Your task to perform on an android device: change your default location settings in chrome Image 0: 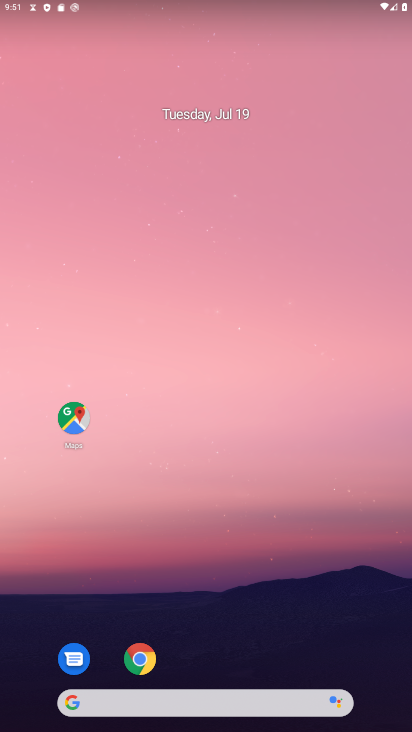
Step 0: drag from (244, 391) to (352, 23)
Your task to perform on an android device: change your default location settings in chrome Image 1: 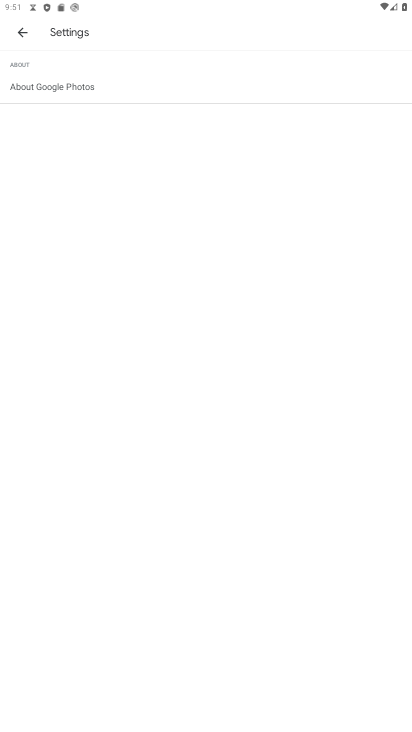
Step 1: drag from (254, 493) to (209, 104)
Your task to perform on an android device: change your default location settings in chrome Image 2: 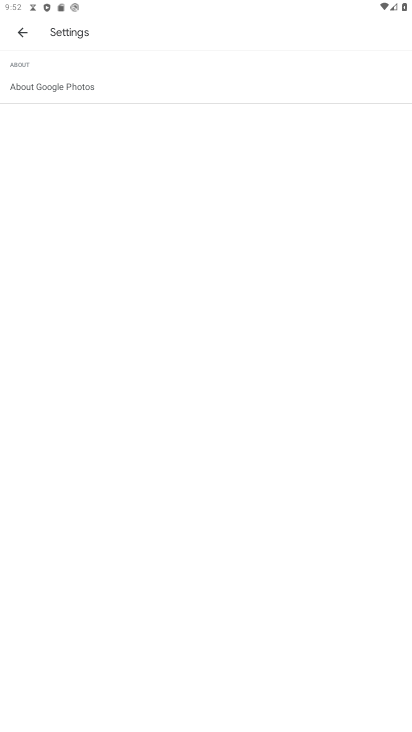
Step 2: drag from (254, 399) to (243, 64)
Your task to perform on an android device: change your default location settings in chrome Image 3: 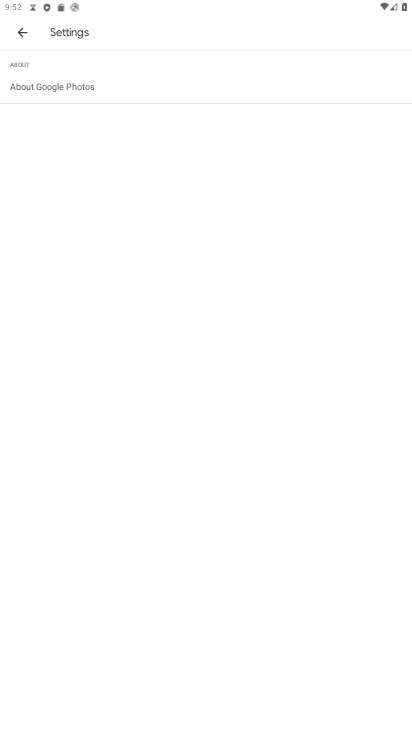
Step 3: click (201, 380)
Your task to perform on an android device: change your default location settings in chrome Image 4: 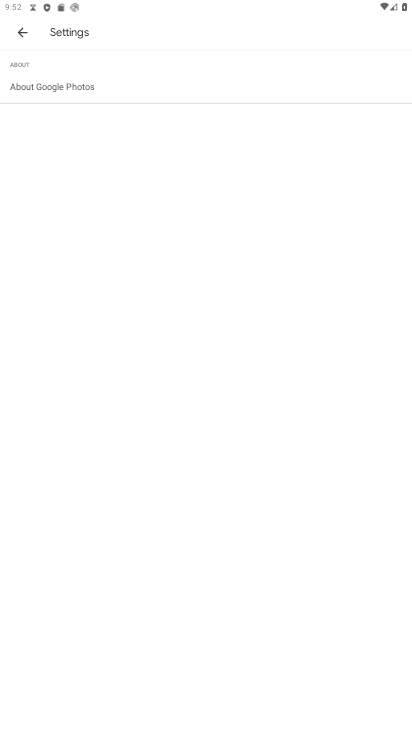
Step 4: click (35, 30)
Your task to perform on an android device: change your default location settings in chrome Image 5: 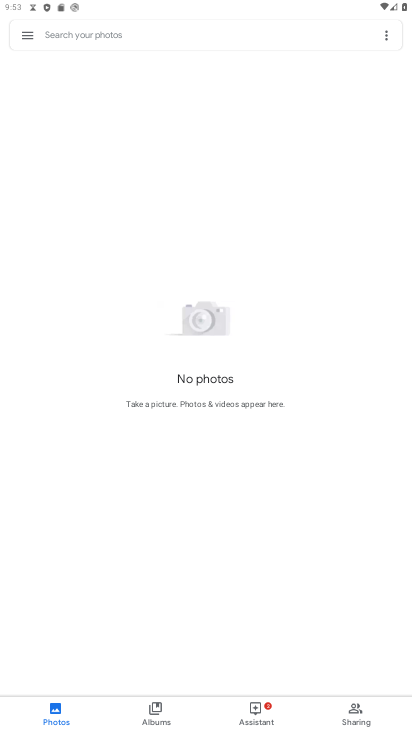
Step 5: drag from (312, 397) to (312, 301)
Your task to perform on an android device: change your default location settings in chrome Image 6: 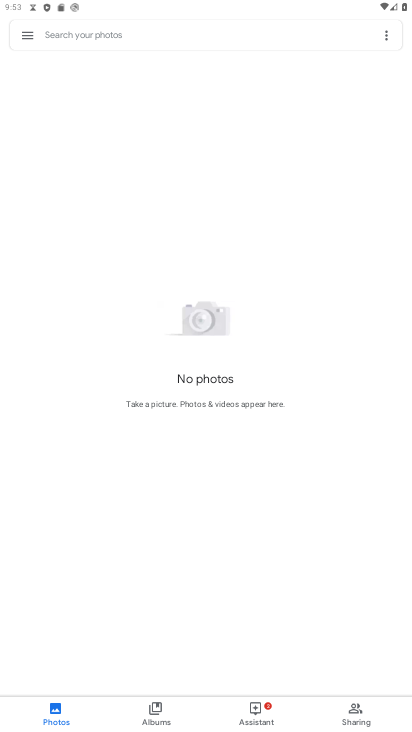
Step 6: press home button
Your task to perform on an android device: change your default location settings in chrome Image 7: 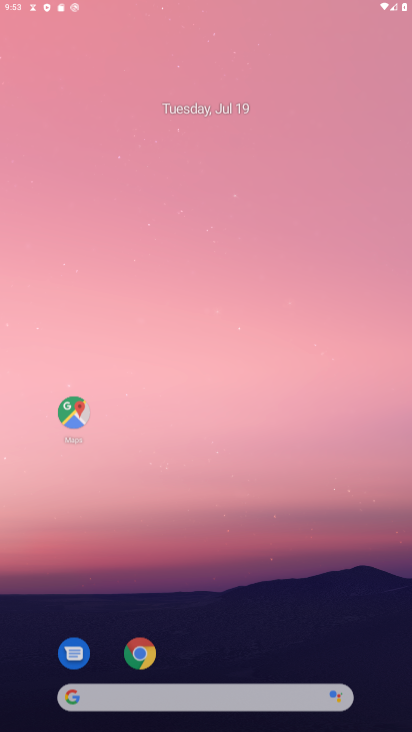
Step 7: drag from (280, 271) to (372, 18)
Your task to perform on an android device: change your default location settings in chrome Image 8: 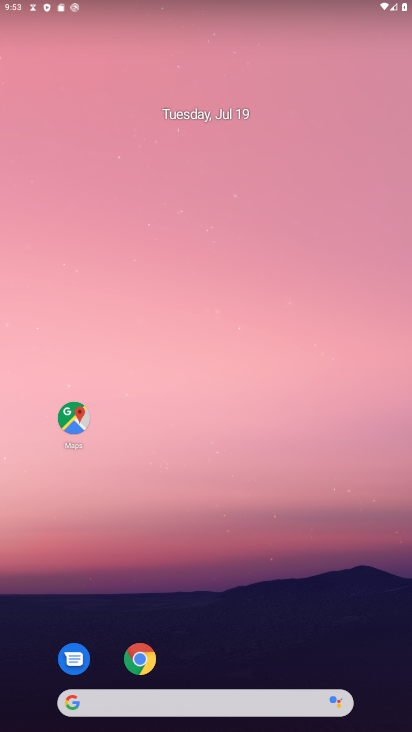
Step 8: click (134, 662)
Your task to perform on an android device: change your default location settings in chrome Image 9: 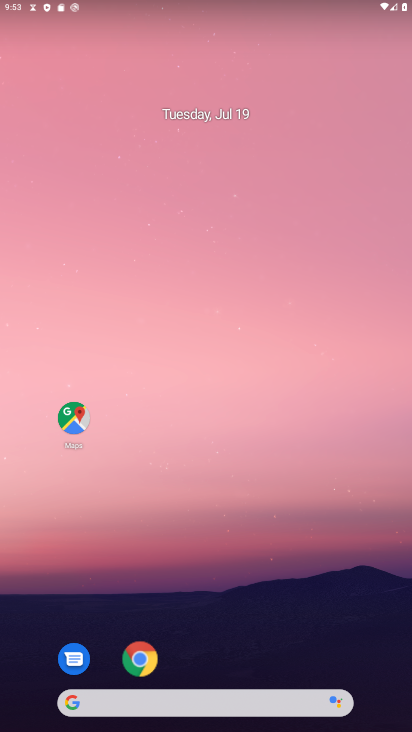
Step 9: click (134, 662)
Your task to perform on an android device: change your default location settings in chrome Image 10: 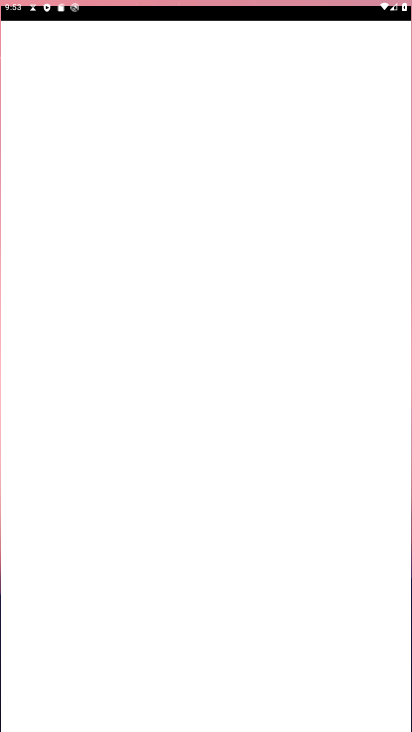
Step 10: click (134, 662)
Your task to perform on an android device: change your default location settings in chrome Image 11: 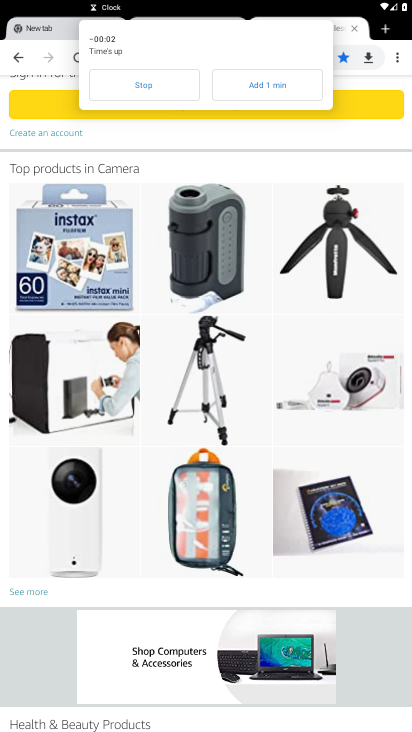
Step 11: drag from (396, 62) to (358, 376)
Your task to perform on an android device: change your default location settings in chrome Image 12: 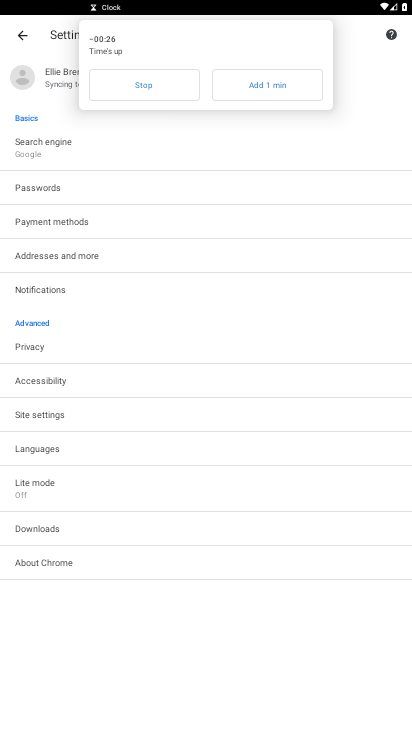
Step 12: drag from (406, 152) to (375, 8)
Your task to perform on an android device: change your default location settings in chrome Image 13: 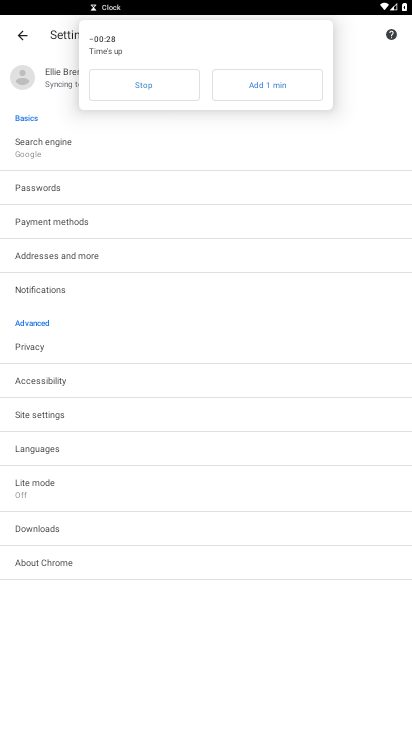
Step 13: drag from (92, 492) to (137, 121)
Your task to perform on an android device: change your default location settings in chrome Image 14: 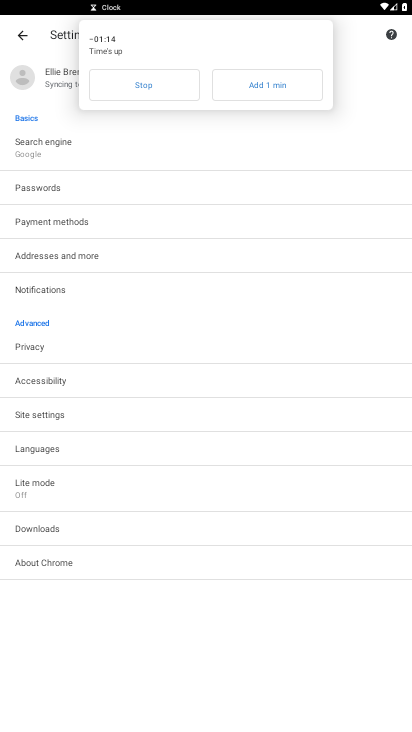
Step 14: click (105, 404)
Your task to perform on an android device: change your default location settings in chrome Image 15: 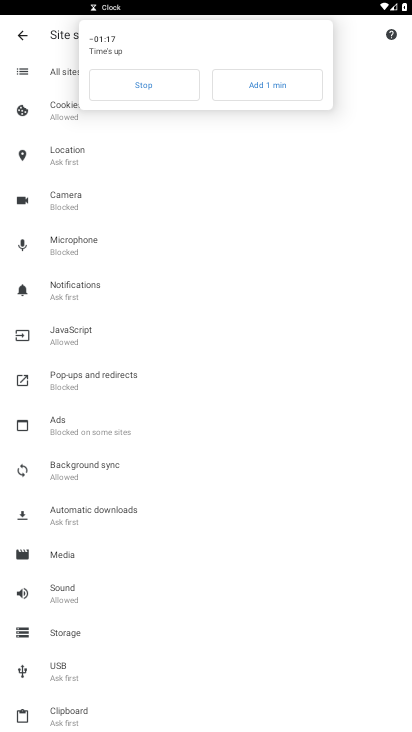
Step 15: click (91, 145)
Your task to perform on an android device: change your default location settings in chrome Image 16: 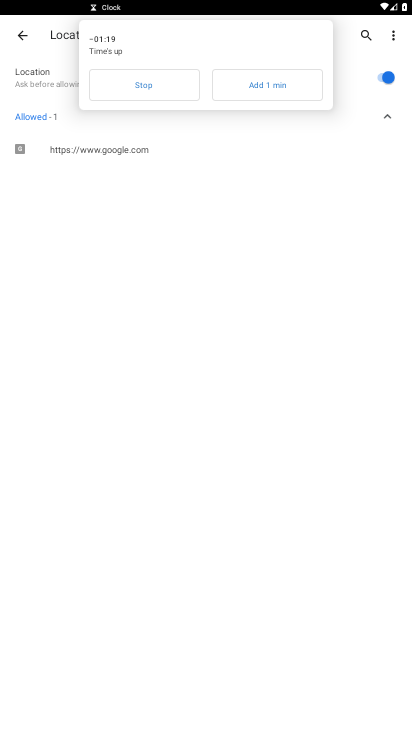
Step 16: task complete